Your task to perform on an android device: change the clock display to show seconds Image 0: 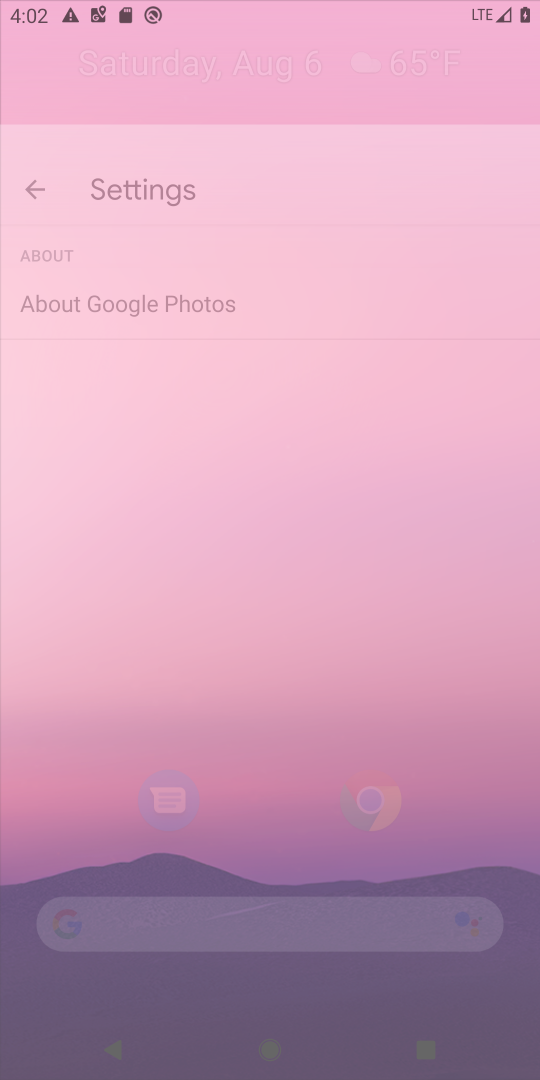
Step 0: press back button
Your task to perform on an android device: change the clock display to show seconds Image 1: 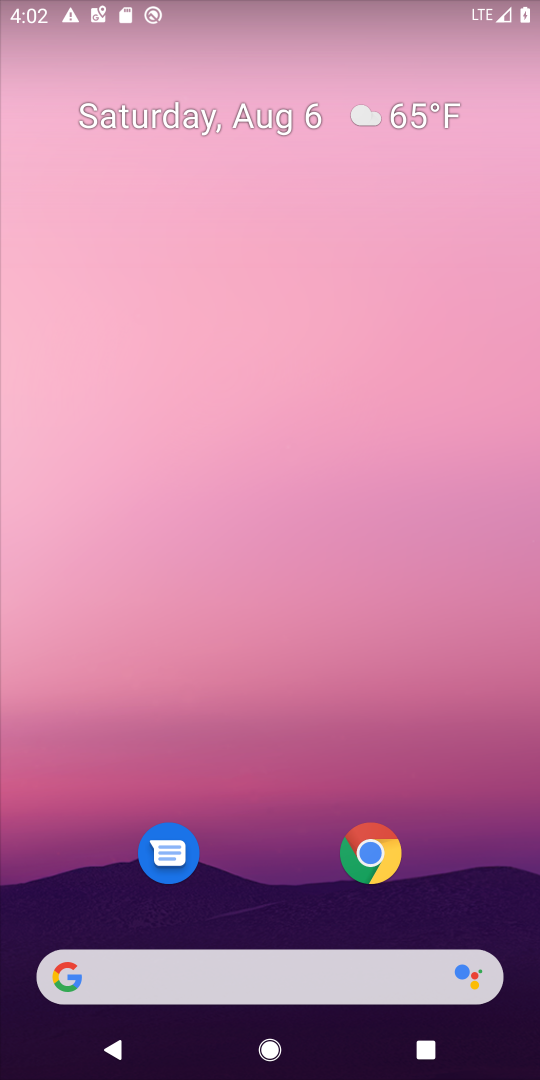
Step 1: drag from (287, 848) to (284, 148)
Your task to perform on an android device: change the clock display to show seconds Image 2: 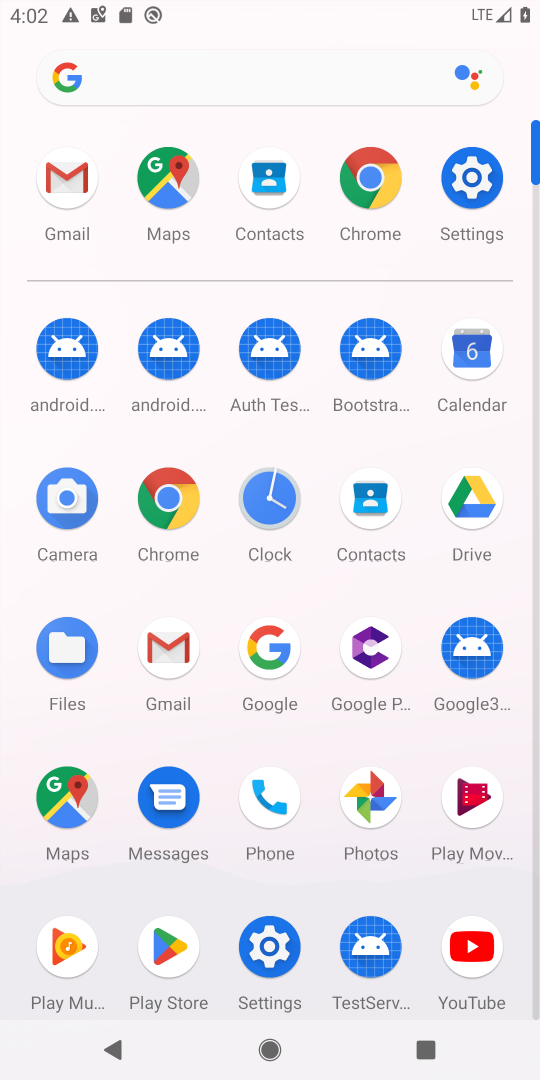
Step 2: click (260, 494)
Your task to perform on an android device: change the clock display to show seconds Image 3: 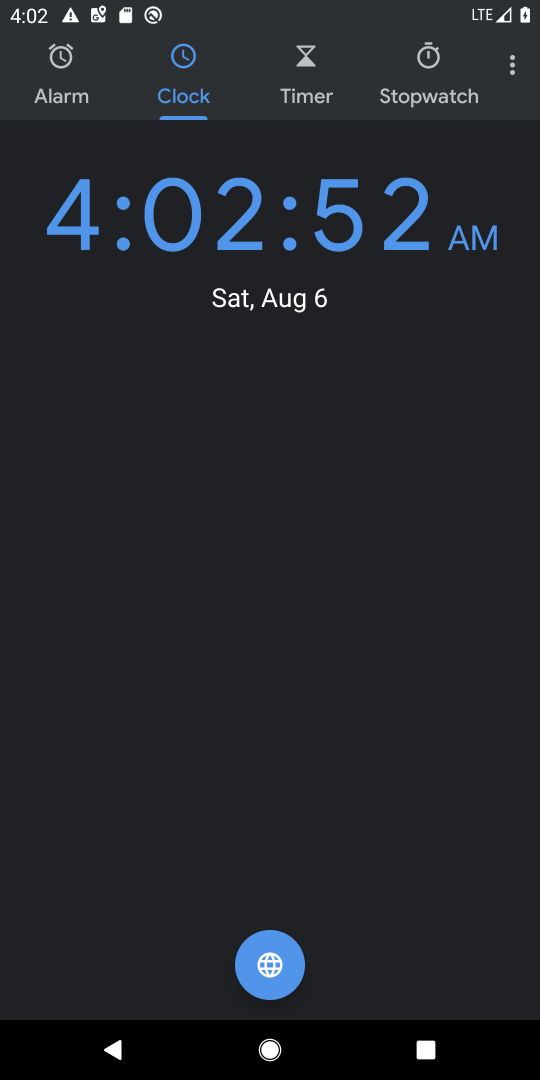
Step 3: click (517, 86)
Your task to perform on an android device: change the clock display to show seconds Image 4: 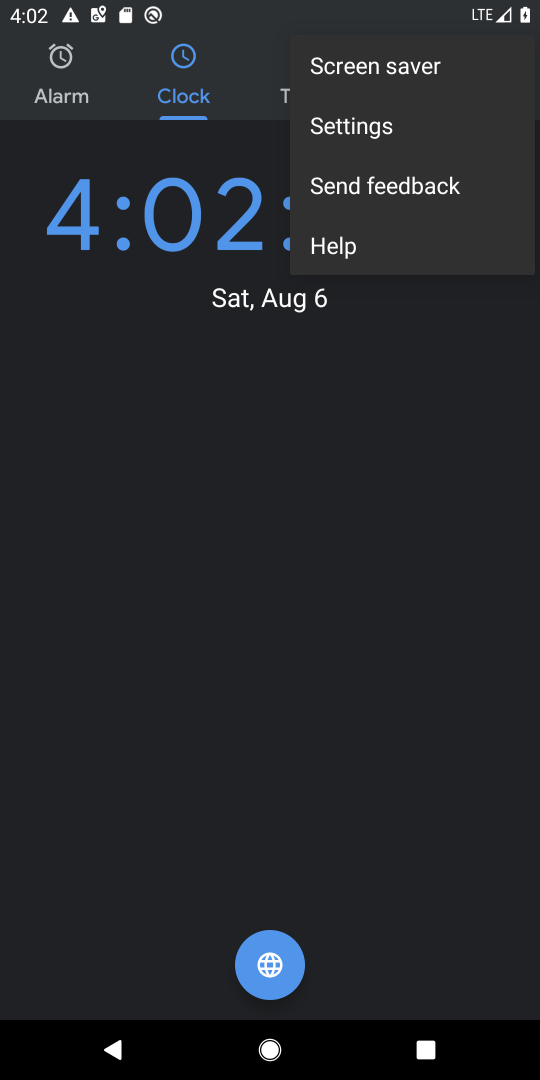
Step 4: click (359, 122)
Your task to perform on an android device: change the clock display to show seconds Image 5: 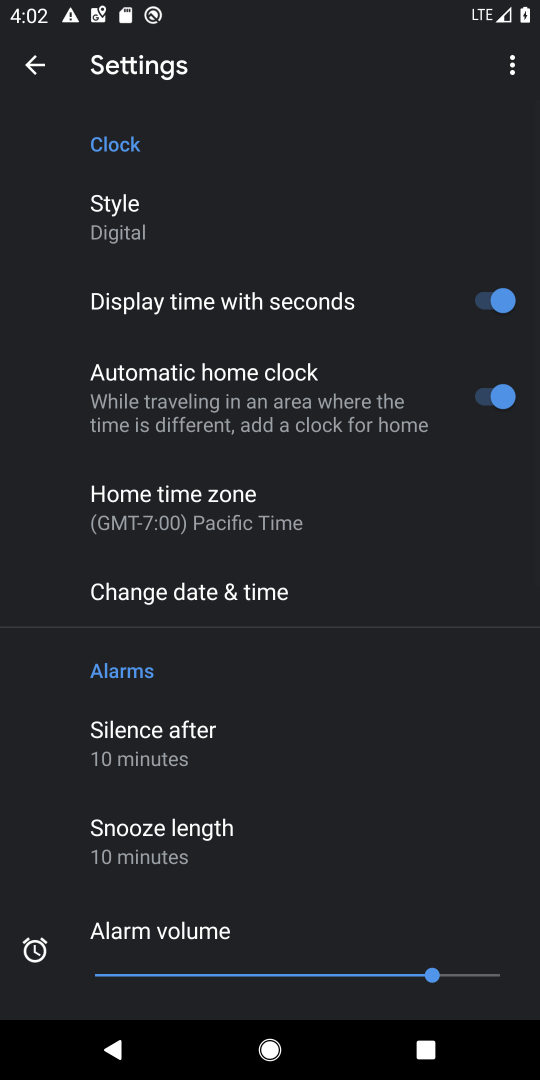
Step 5: click (183, 212)
Your task to perform on an android device: change the clock display to show seconds Image 6: 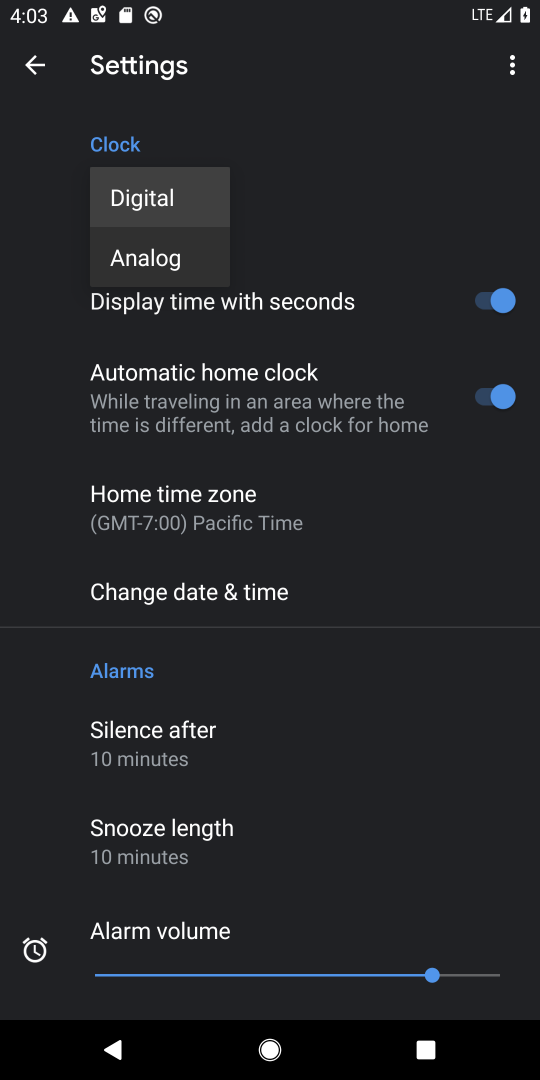
Step 6: click (195, 199)
Your task to perform on an android device: change the clock display to show seconds Image 7: 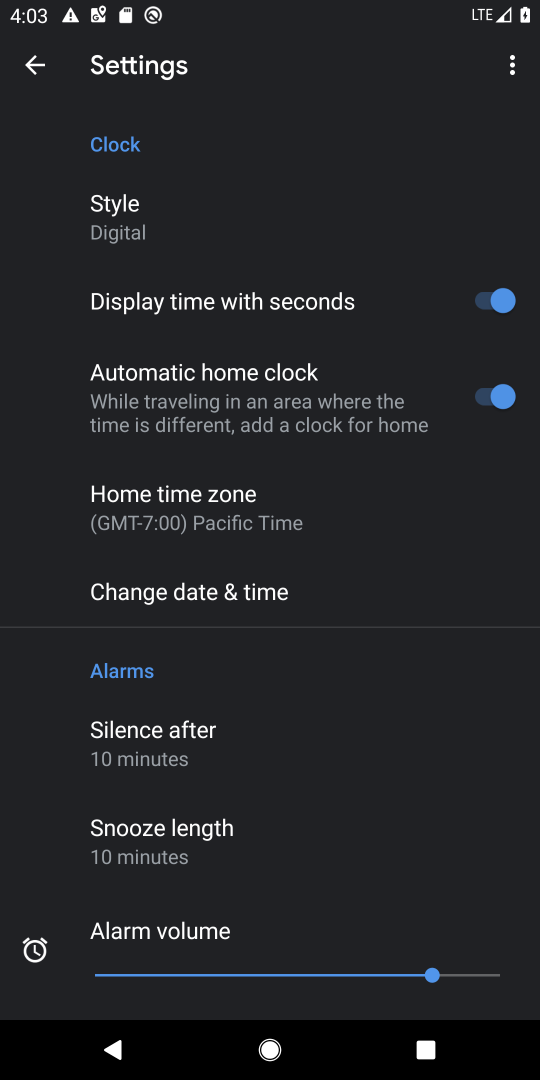
Step 7: task complete